Your task to perform on an android device: empty trash in google photos Image 0: 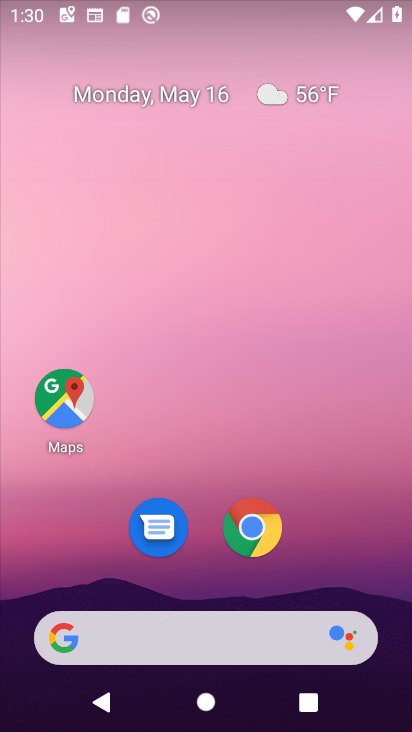
Step 0: drag from (155, 636) to (93, 88)
Your task to perform on an android device: empty trash in google photos Image 1: 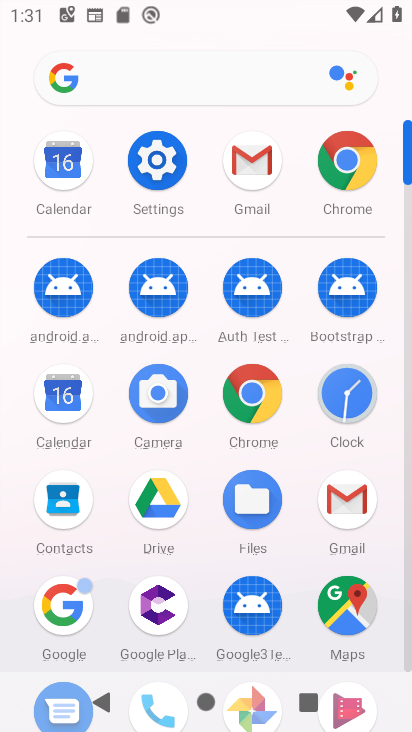
Step 1: click (241, 173)
Your task to perform on an android device: empty trash in google photos Image 2: 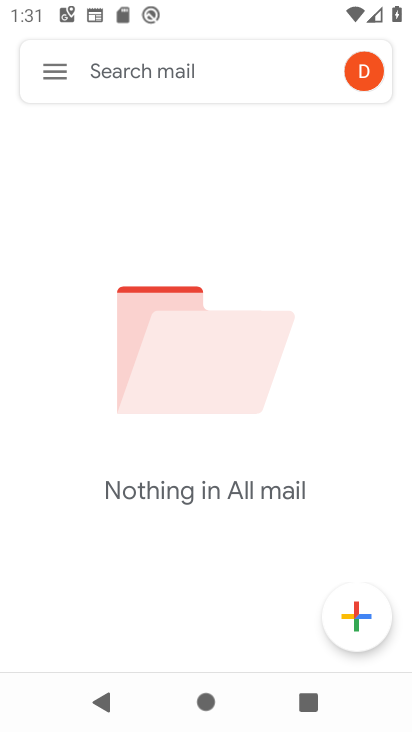
Step 2: press home button
Your task to perform on an android device: empty trash in google photos Image 3: 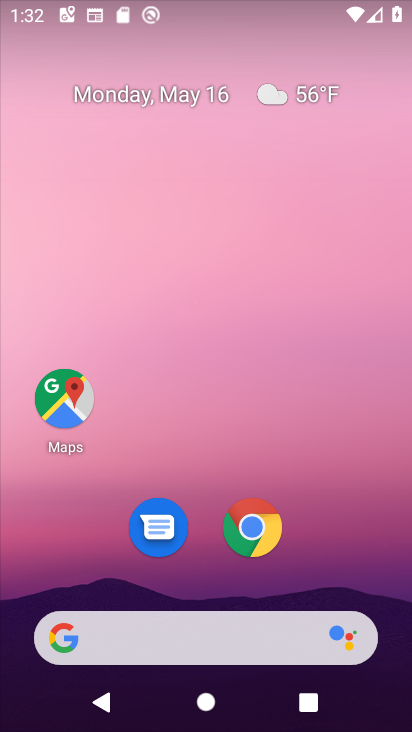
Step 3: drag from (208, 613) to (180, 14)
Your task to perform on an android device: empty trash in google photos Image 4: 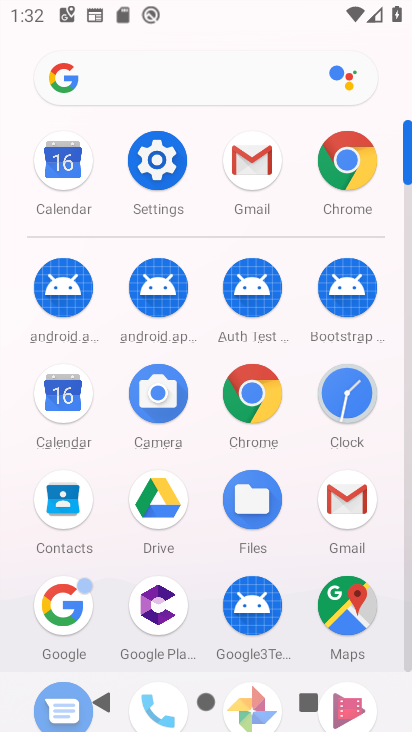
Step 4: click (180, 14)
Your task to perform on an android device: empty trash in google photos Image 5: 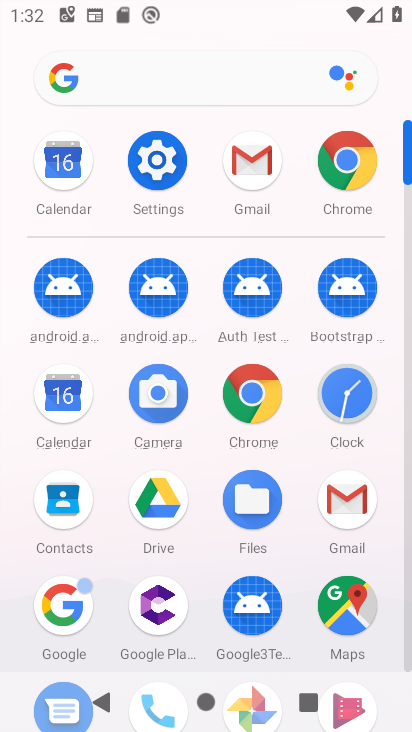
Step 5: drag from (240, 655) to (195, 240)
Your task to perform on an android device: empty trash in google photos Image 6: 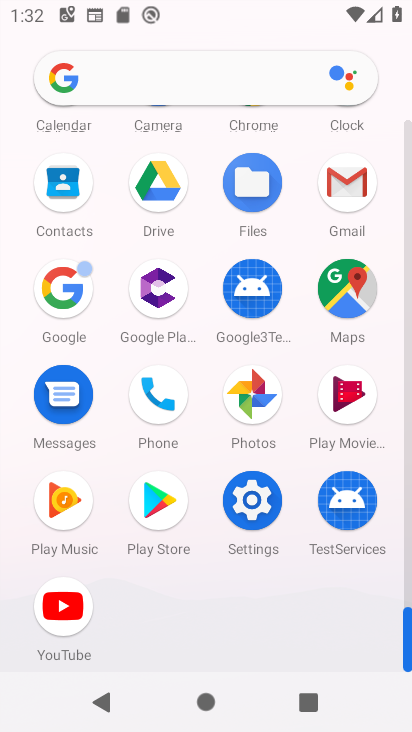
Step 6: click (253, 415)
Your task to perform on an android device: empty trash in google photos Image 7: 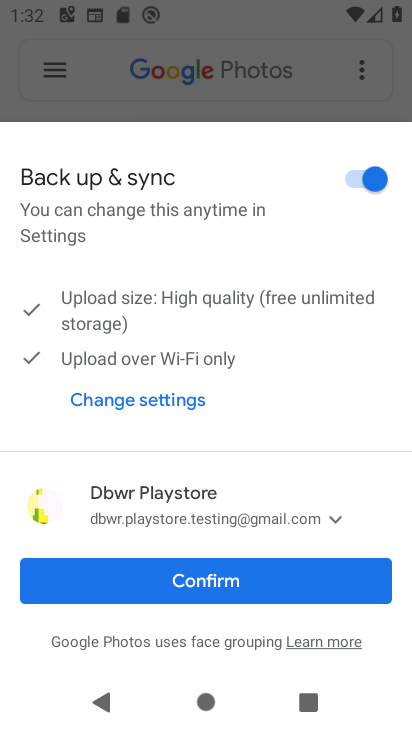
Step 7: click (235, 590)
Your task to perform on an android device: empty trash in google photos Image 8: 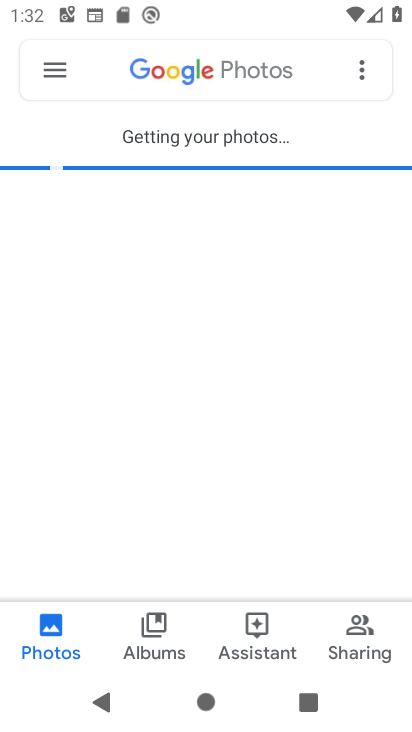
Step 8: click (62, 75)
Your task to perform on an android device: empty trash in google photos Image 9: 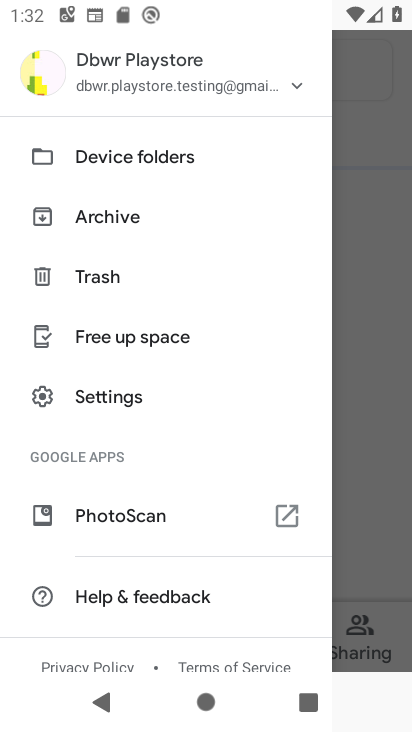
Step 9: click (80, 288)
Your task to perform on an android device: empty trash in google photos Image 10: 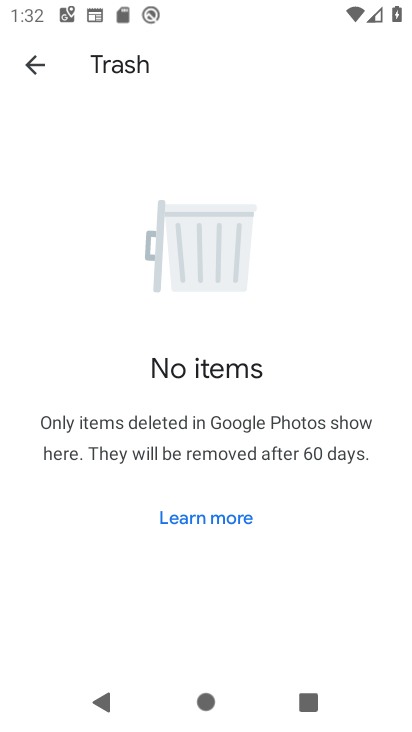
Step 10: task complete